Your task to perform on an android device: toggle javascript in the chrome app Image 0: 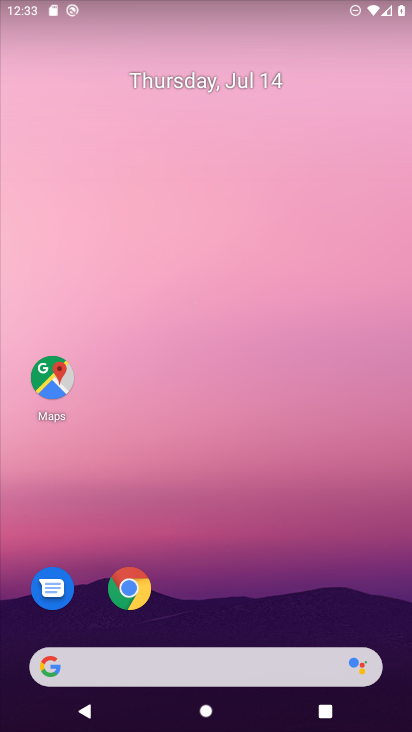
Step 0: click (129, 593)
Your task to perform on an android device: toggle javascript in the chrome app Image 1: 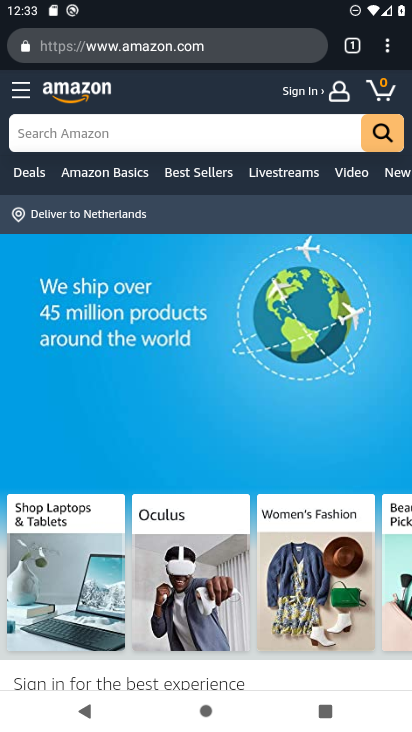
Step 1: drag from (392, 45) to (282, 587)
Your task to perform on an android device: toggle javascript in the chrome app Image 2: 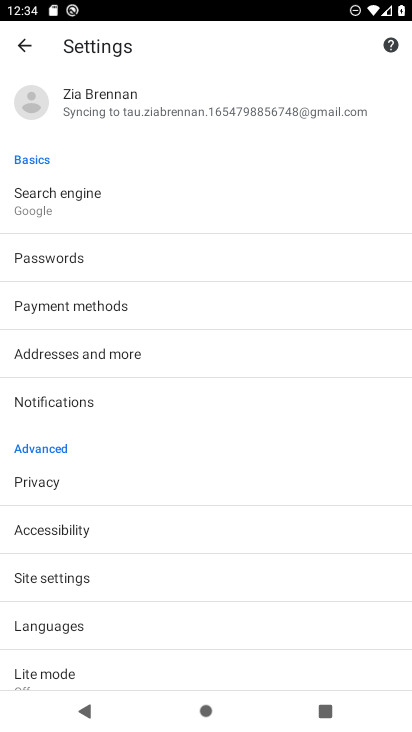
Step 2: drag from (139, 617) to (272, 237)
Your task to perform on an android device: toggle javascript in the chrome app Image 3: 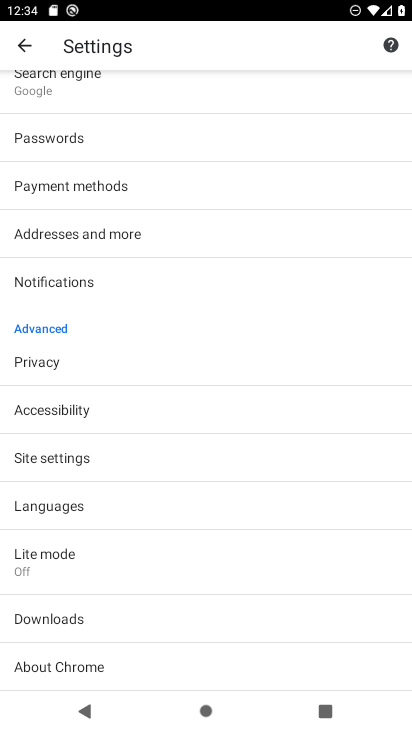
Step 3: click (94, 460)
Your task to perform on an android device: toggle javascript in the chrome app Image 4: 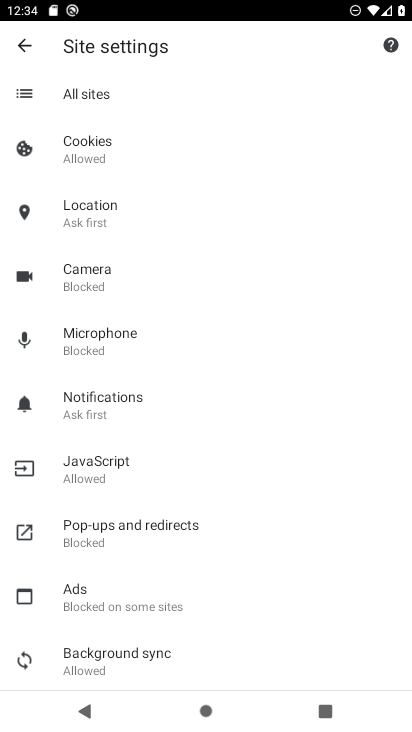
Step 4: click (105, 464)
Your task to perform on an android device: toggle javascript in the chrome app Image 5: 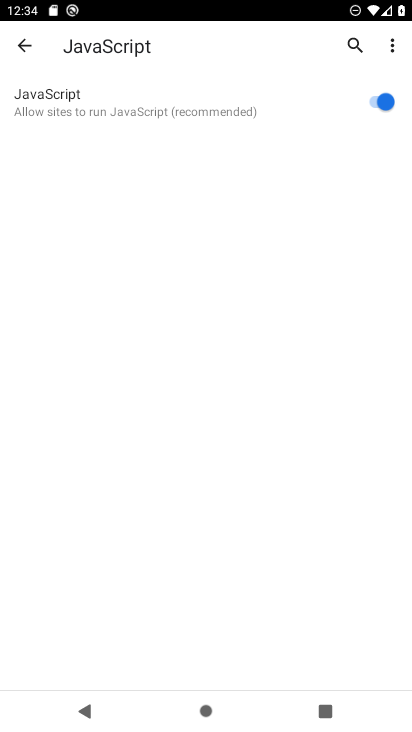
Step 5: click (371, 100)
Your task to perform on an android device: toggle javascript in the chrome app Image 6: 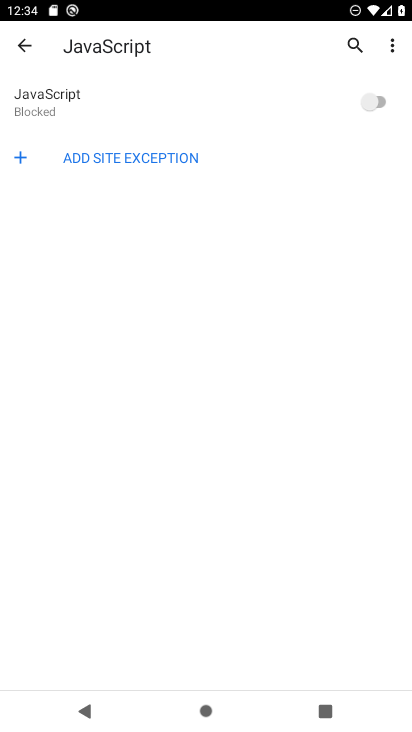
Step 6: task complete